Your task to perform on an android device: turn pop-ups on in chrome Image 0: 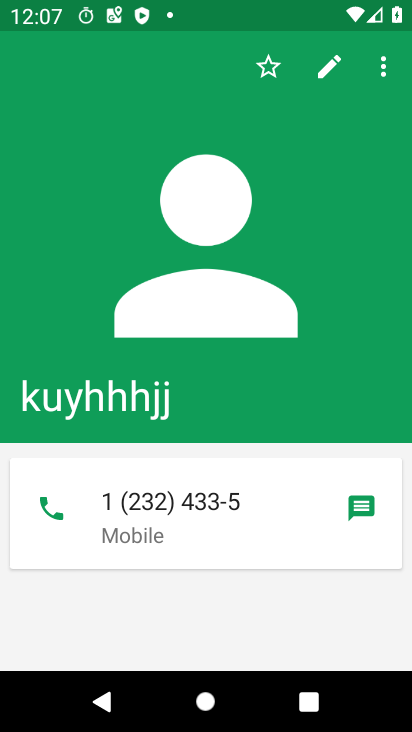
Step 0: press home button
Your task to perform on an android device: turn pop-ups on in chrome Image 1: 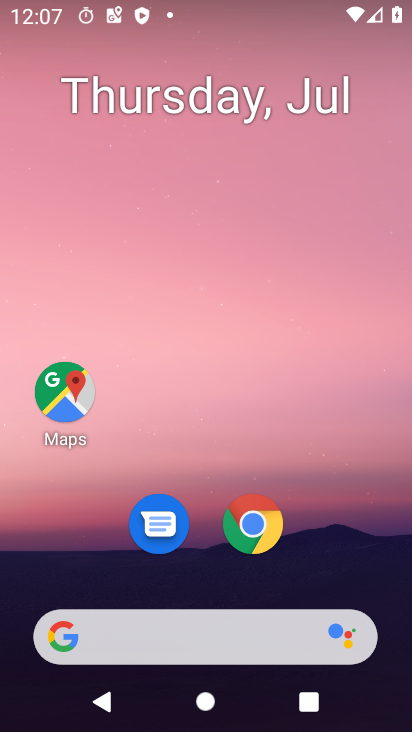
Step 1: click (257, 527)
Your task to perform on an android device: turn pop-ups on in chrome Image 2: 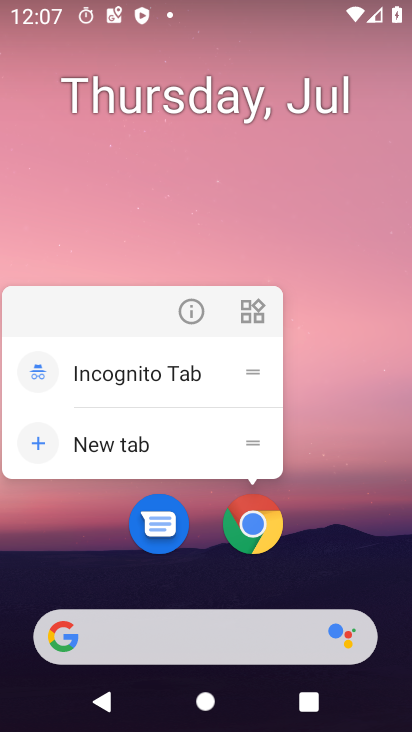
Step 2: click (251, 527)
Your task to perform on an android device: turn pop-ups on in chrome Image 3: 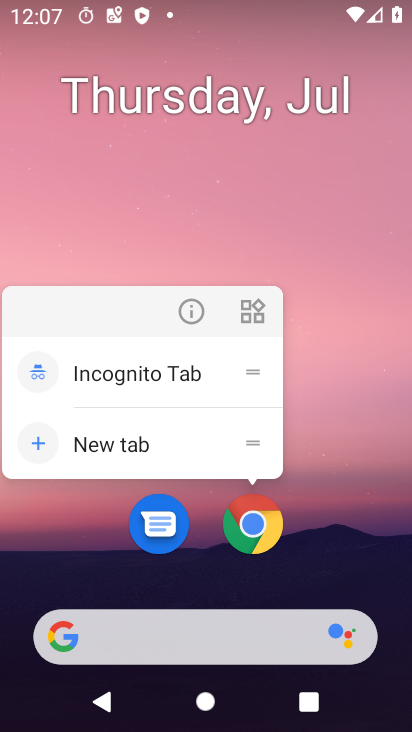
Step 3: click (256, 526)
Your task to perform on an android device: turn pop-ups on in chrome Image 4: 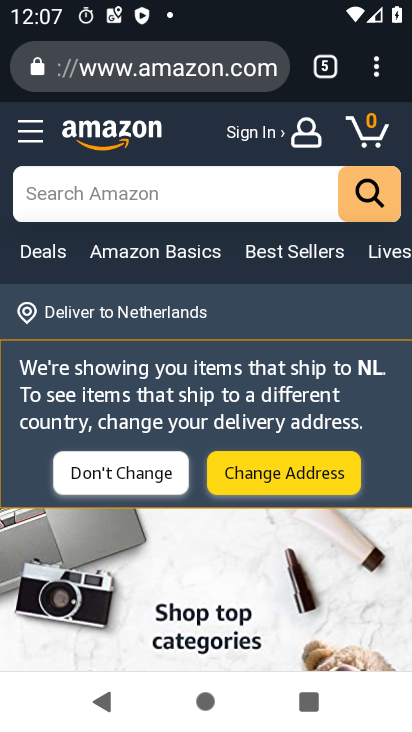
Step 4: drag from (377, 67) to (266, 513)
Your task to perform on an android device: turn pop-ups on in chrome Image 5: 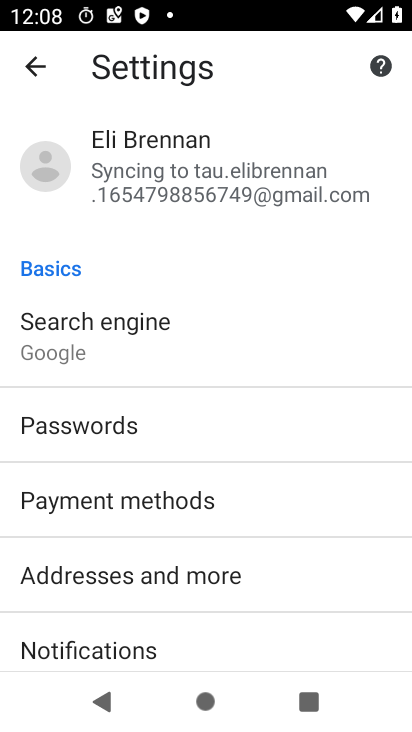
Step 5: drag from (238, 621) to (278, 293)
Your task to perform on an android device: turn pop-ups on in chrome Image 6: 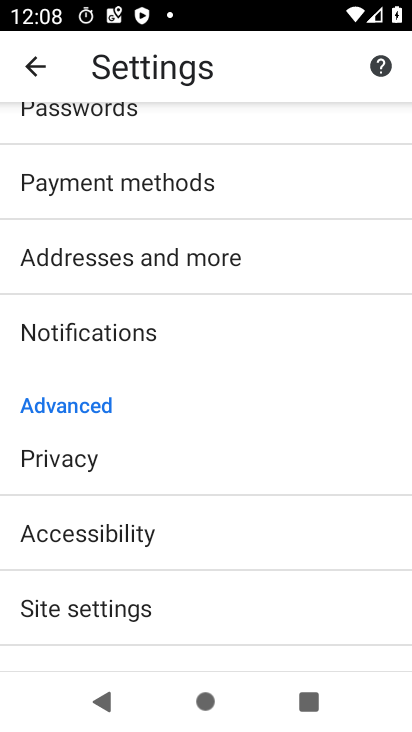
Step 6: drag from (241, 565) to (320, 268)
Your task to perform on an android device: turn pop-ups on in chrome Image 7: 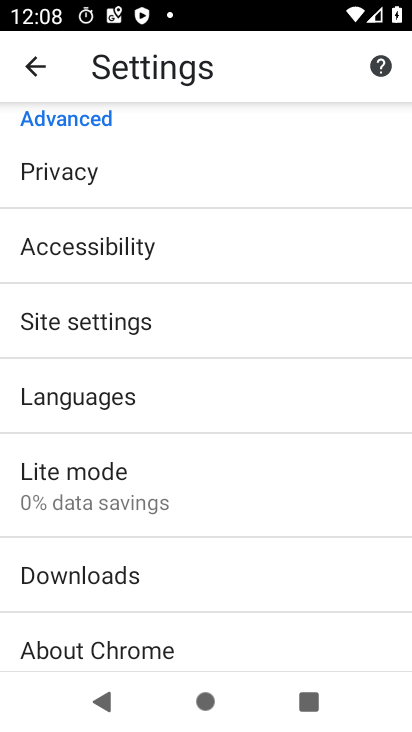
Step 7: click (100, 334)
Your task to perform on an android device: turn pop-ups on in chrome Image 8: 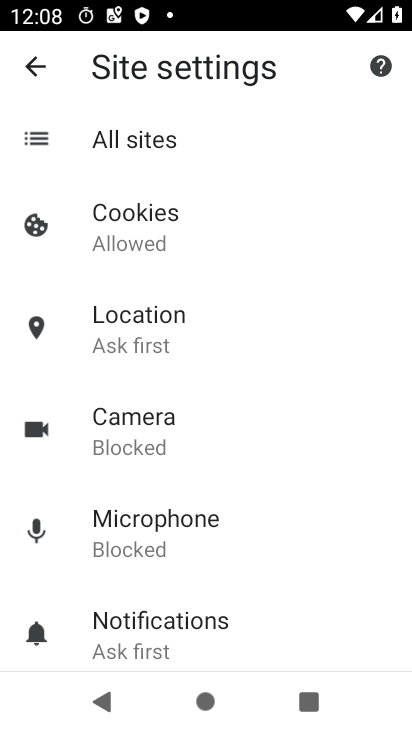
Step 8: drag from (232, 608) to (317, 248)
Your task to perform on an android device: turn pop-ups on in chrome Image 9: 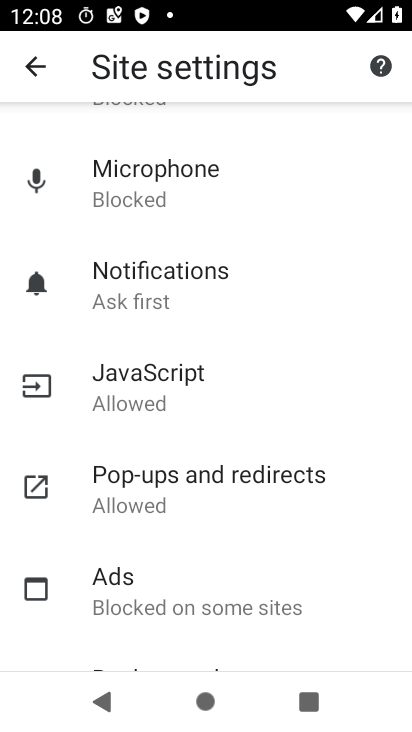
Step 9: click (181, 473)
Your task to perform on an android device: turn pop-ups on in chrome Image 10: 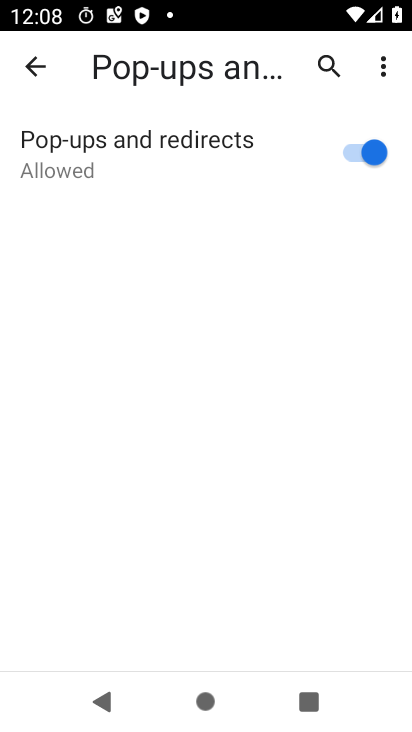
Step 10: task complete